Your task to perform on an android device: star an email in the gmail app Image 0: 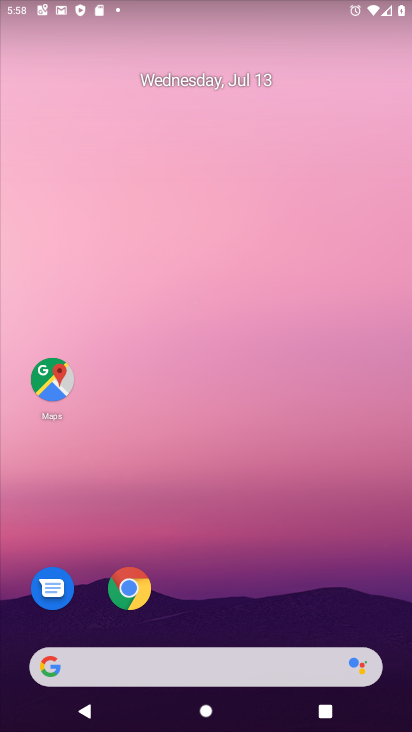
Step 0: drag from (192, 511) to (155, 209)
Your task to perform on an android device: star an email in the gmail app Image 1: 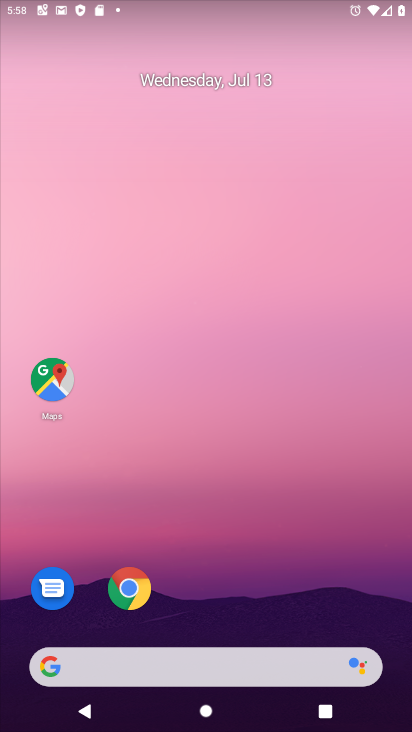
Step 1: drag from (230, 608) to (233, 193)
Your task to perform on an android device: star an email in the gmail app Image 2: 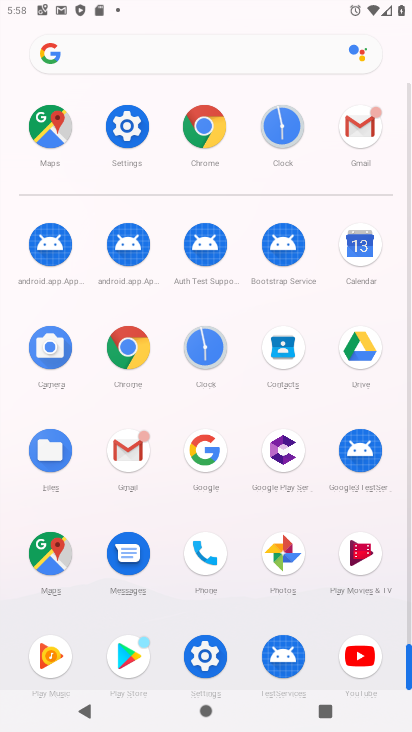
Step 2: click (360, 133)
Your task to perform on an android device: star an email in the gmail app Image 3: 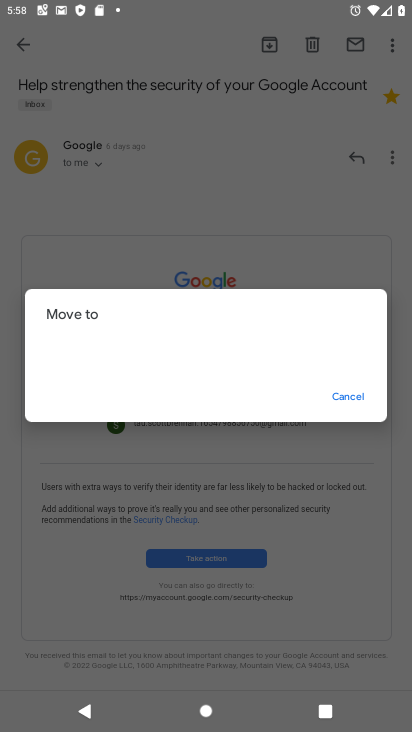
Step 3: click (345, 396)
Your task to perform on an android device: star an email in the gmail app Image 4: 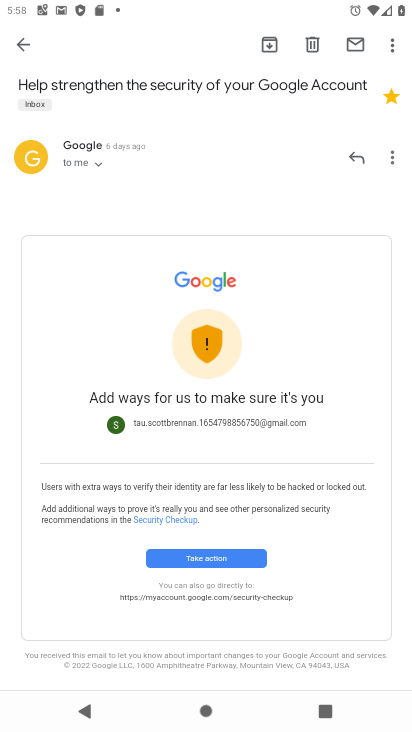
Step 4: task complete